Your task to perform on an android device: Open privacy settings Image 0: 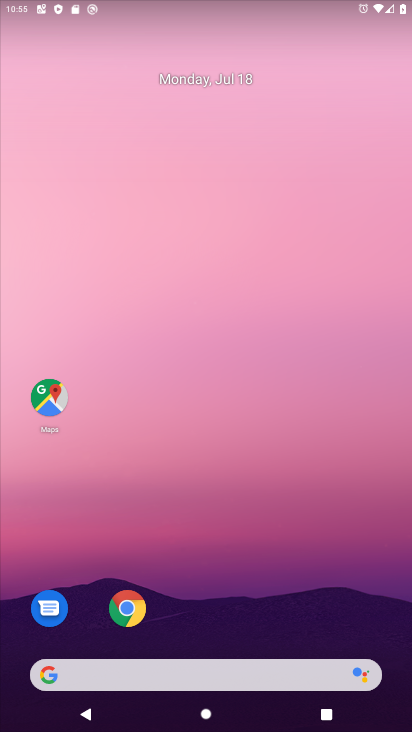
Step 0: drag from (210, 624) to (283, 205)
Your task to perform on an android device: Open privacy settings Image 1: 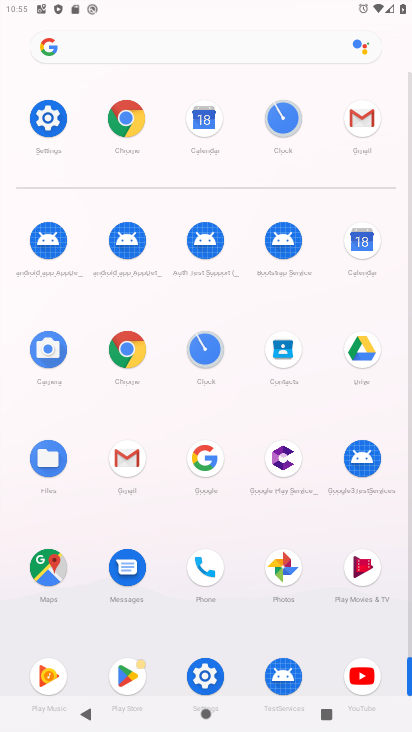
Step 1: click (208, 677)
Your task to perform on an android device: Open privacy settings Image 2: 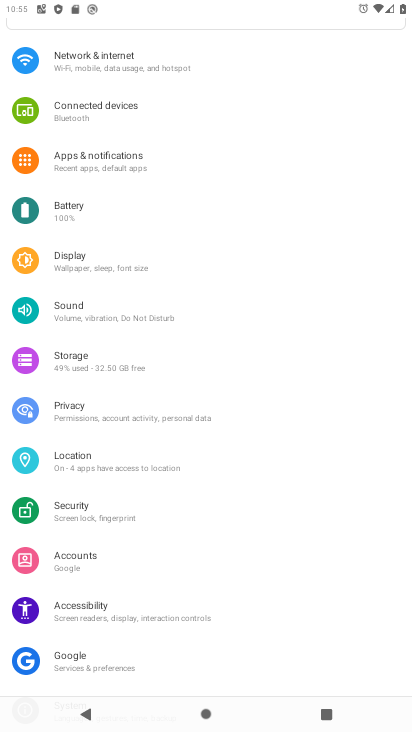
Step 2: click (85, 415)
Your task to perform on an android device: Open privacy settings Image 3: 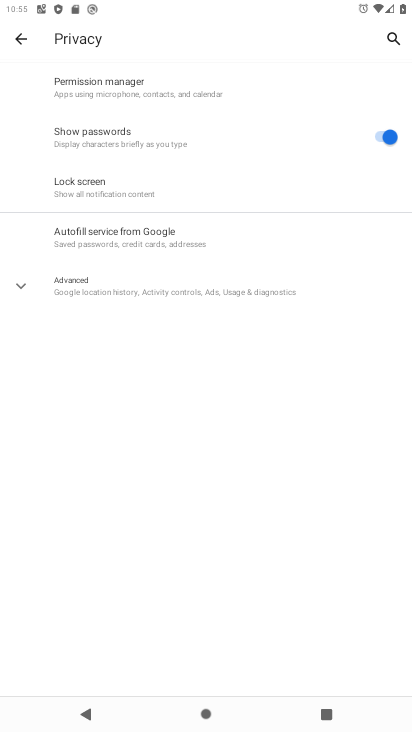
Step 3: task complete